Your task to perform on an android device: What's the latest news in astrophysics? Image 0: 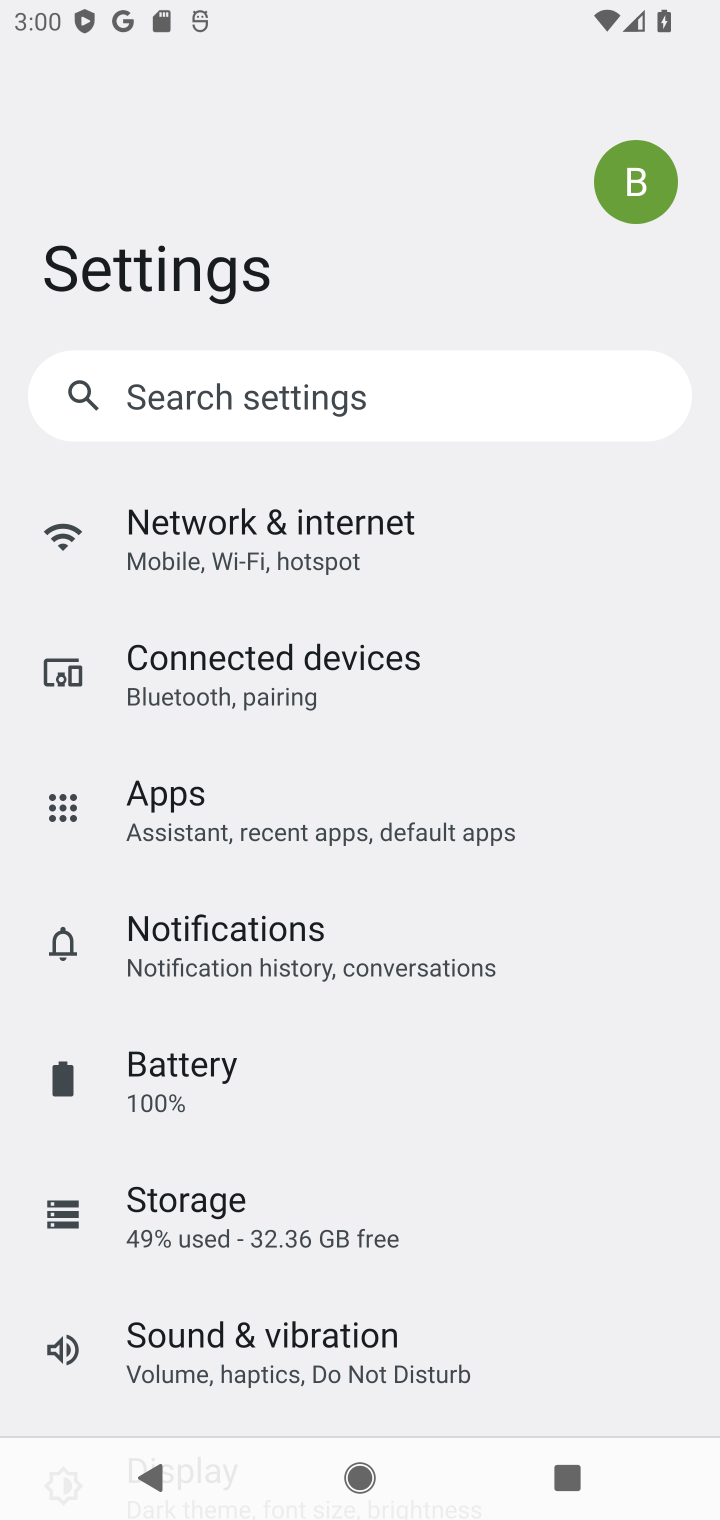
Step 0: press home button
Your task to perform on an android device: What's the latest news in astrophysics? Image 1: 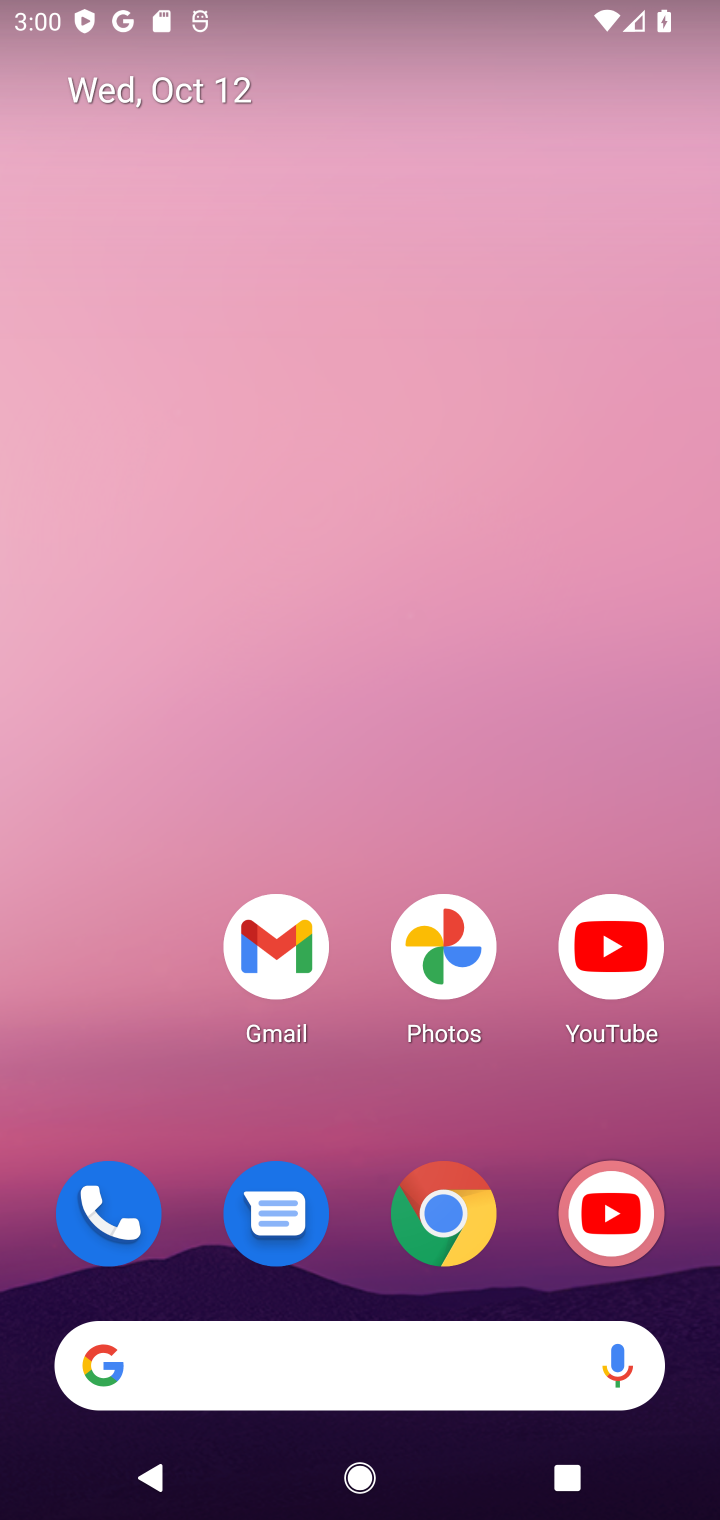
Step 1: click (227, 1345)
Your task to perform on an android device: What's the latest news in astrophysics? Image 2: 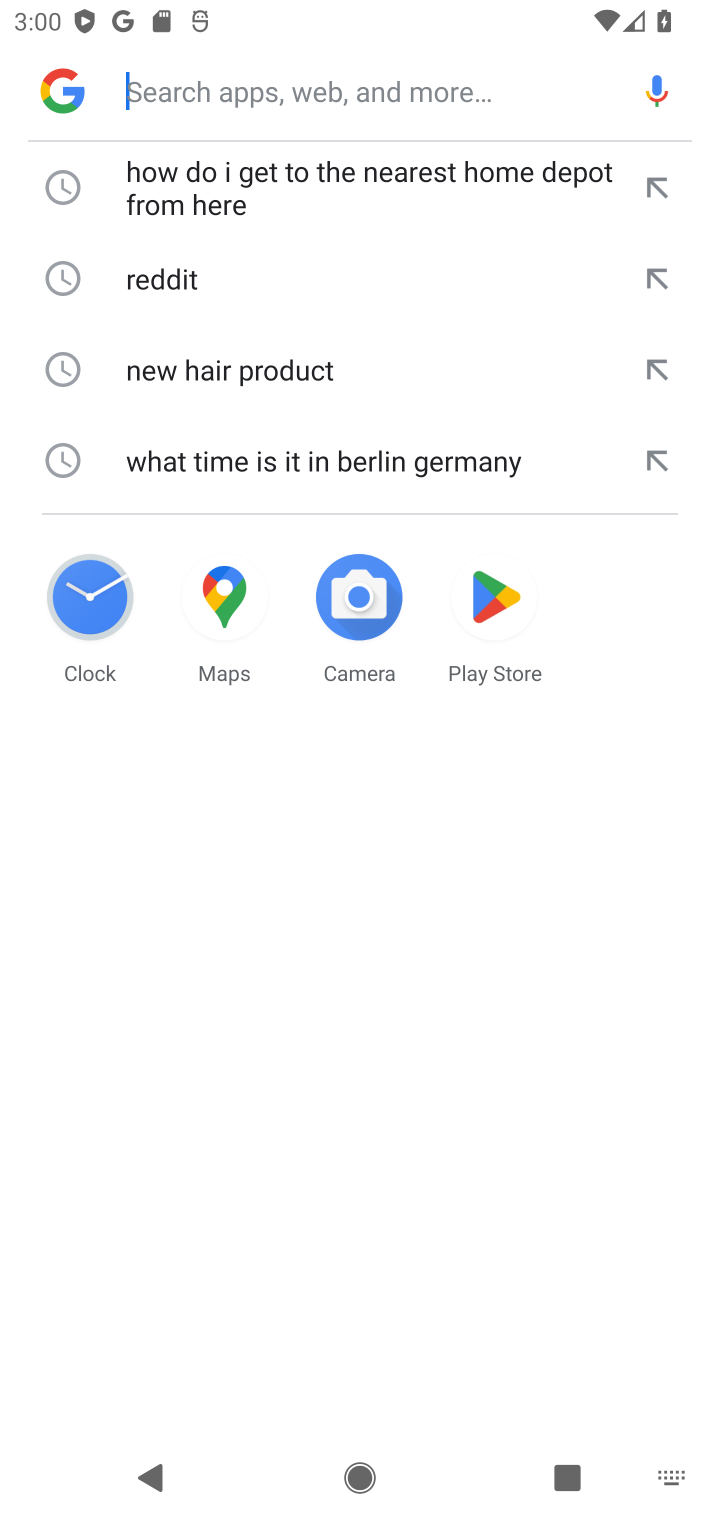
Step 2: click (176, 1361)
Your task to perform on an android device: What's the latest news in astrophysics? Image 3: 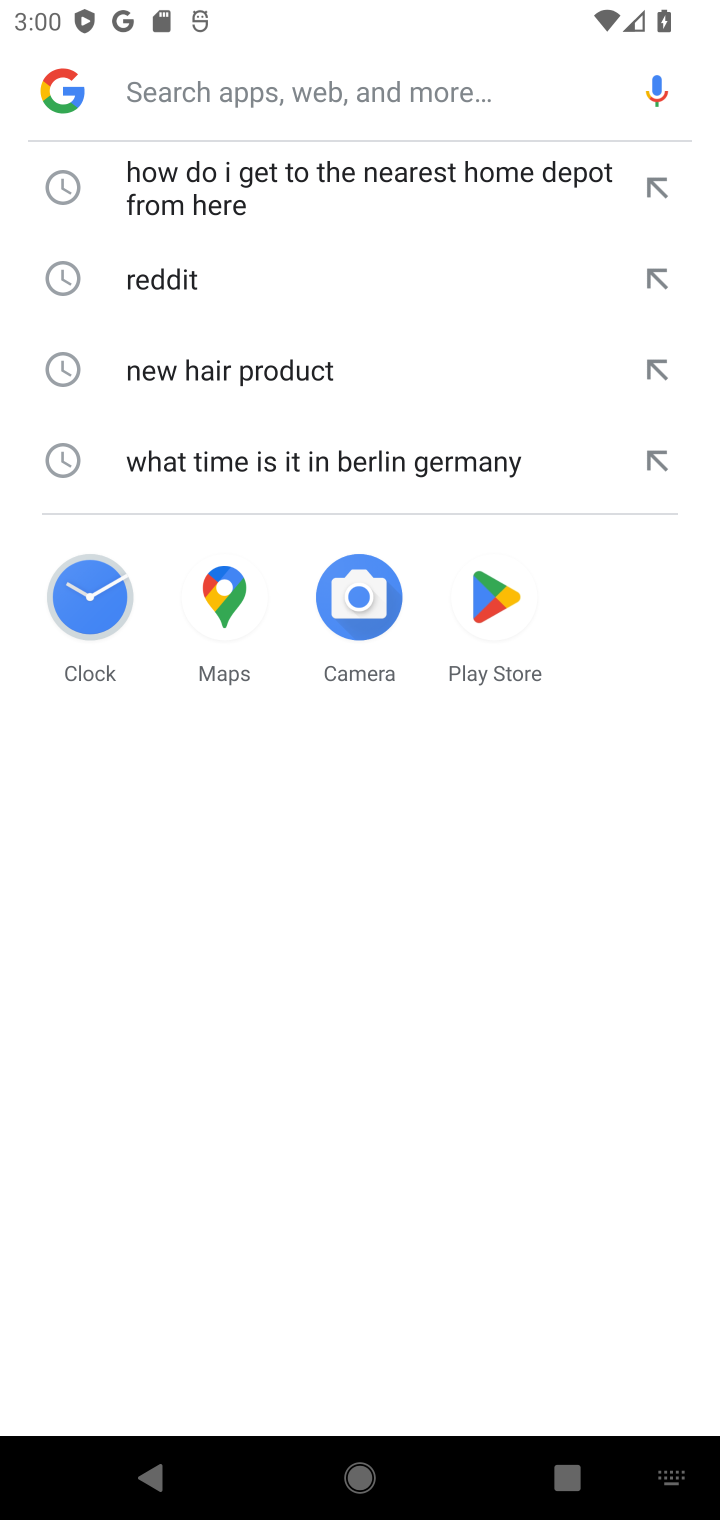
Step 3: click (168, 91)
Your task to perform on an android device: What's the latest news in astrophysics? Image 4: 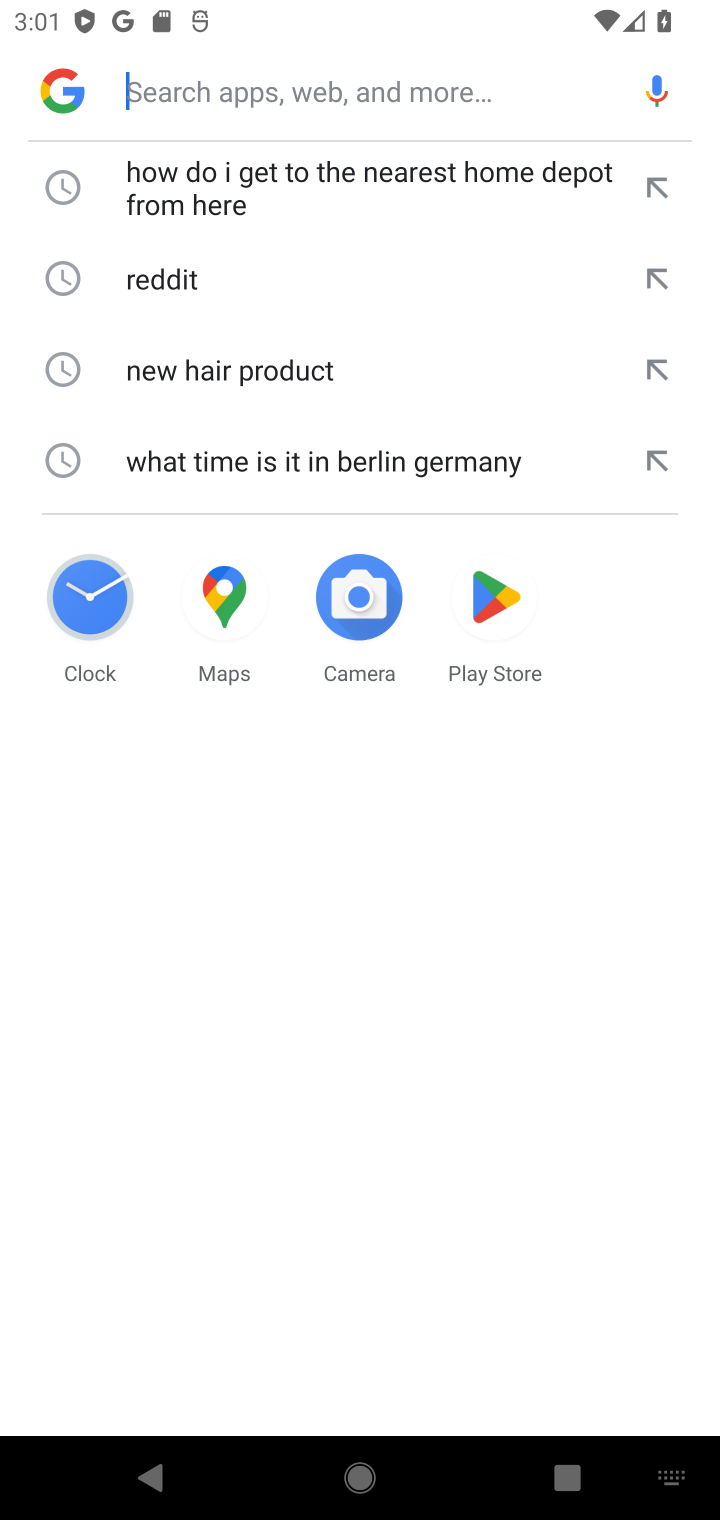
Step 4: type "What's the latest news in astrophysics?"
Your task to perform on an android device: What's the latest news in astrophysics? Image 5: 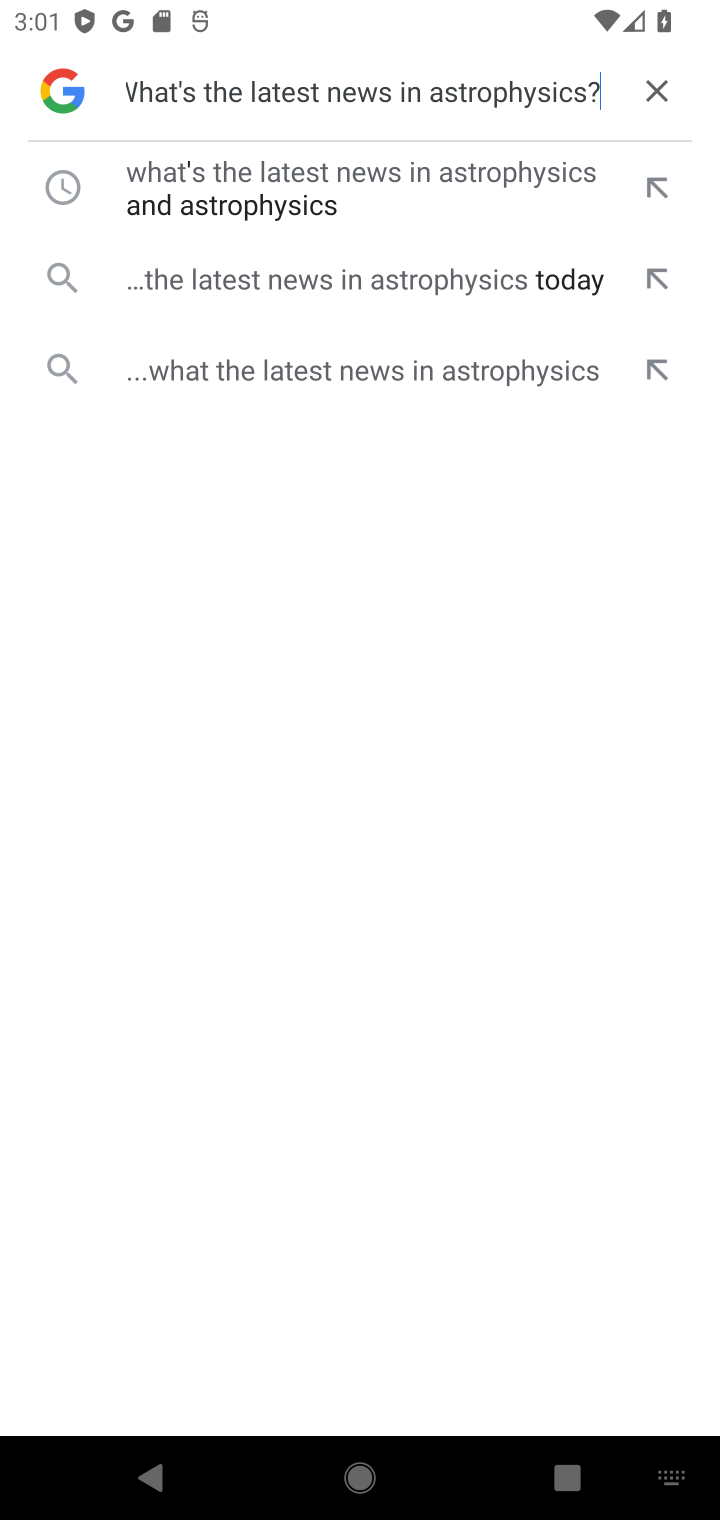
Step 5: click (428, 204)
Your task to perform on an android device: What's the latest news in astrophysics? Image 6: 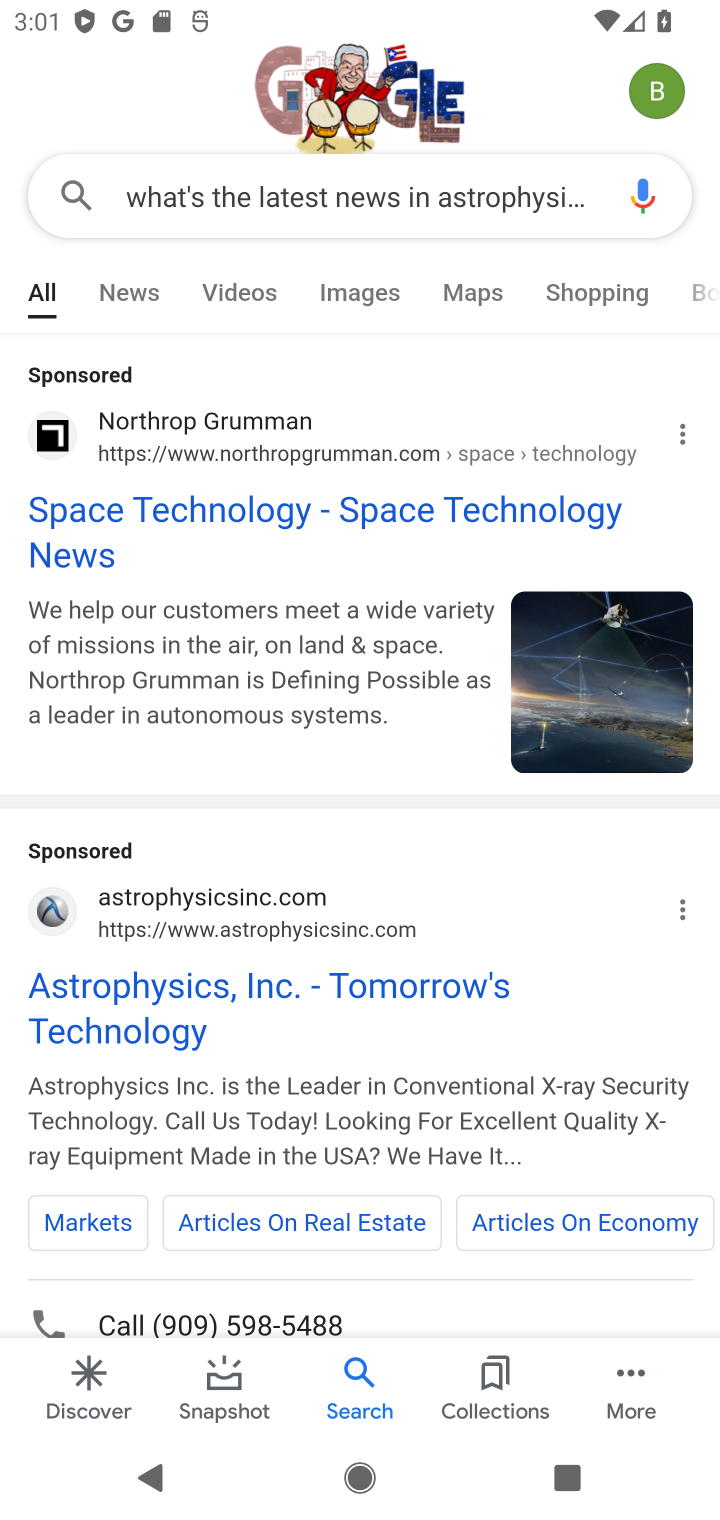
Step 6: task complete